Your task to perform on an android device: Is it going to rain today? Image 0: 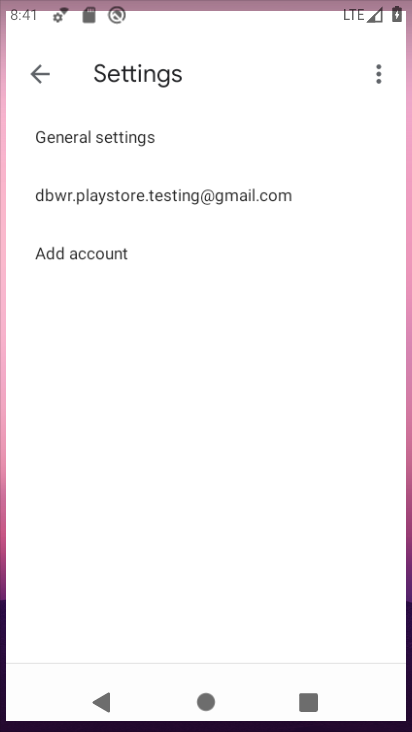
Step 0: press home button
Your task to perform on an android device: Is it going to rain today? Image 1: 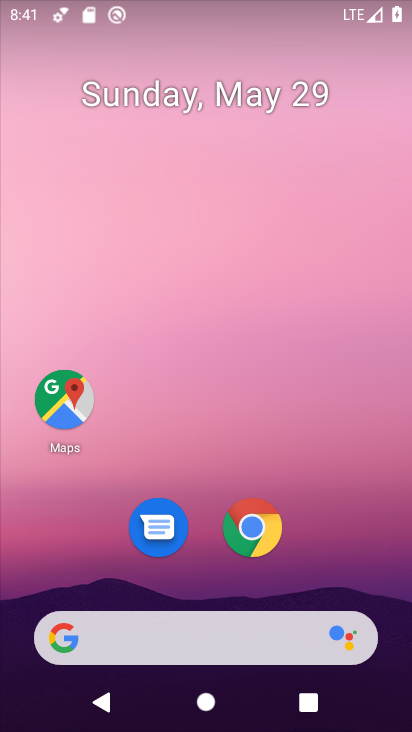
Step 1: drag from (6, 295) to (353, 291)
Your task to perform on an android device: Is it going to rain today? Image 2: 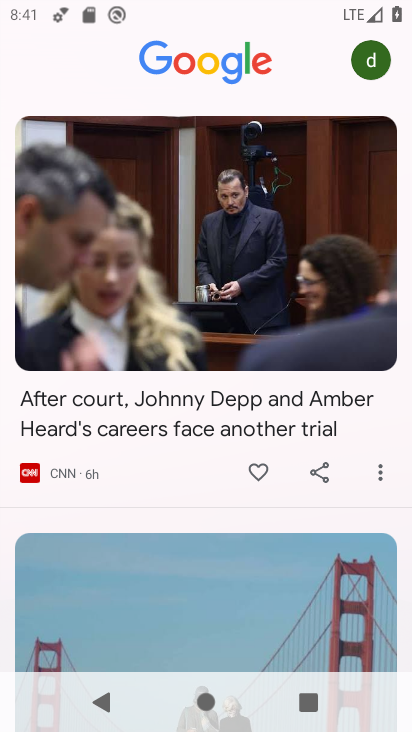
Step 2: press back button
Your task to perform on an android device: Is it going to rain today? Image 3: 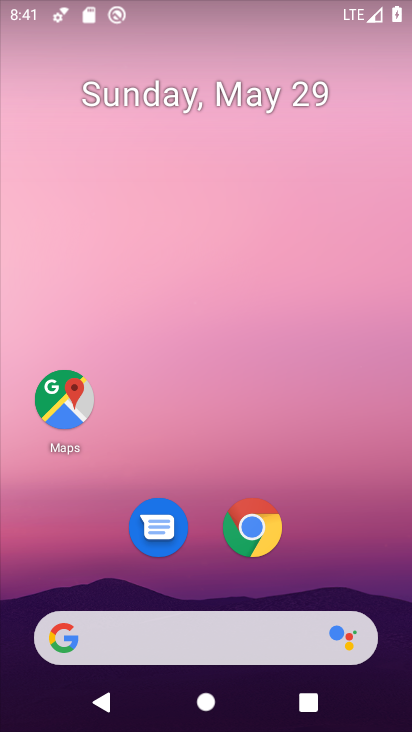
Step 3: click (176, 627)
Your task to perform on an android device: Is it going to rain today? Image 4: 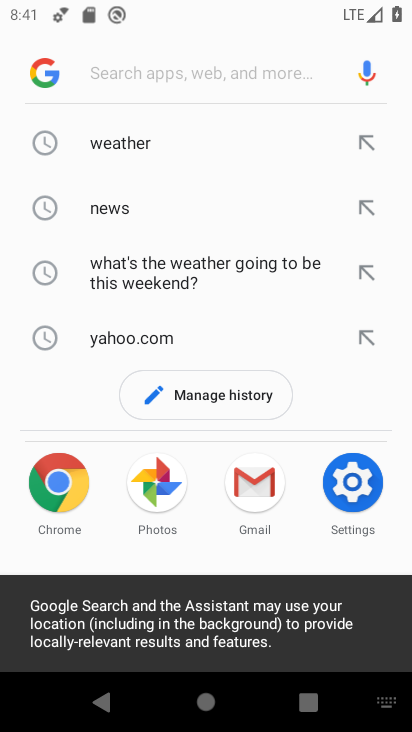
Step 4: click (143, 139)
Your task to perform on an android device: Is it going to rain today? Image 5: 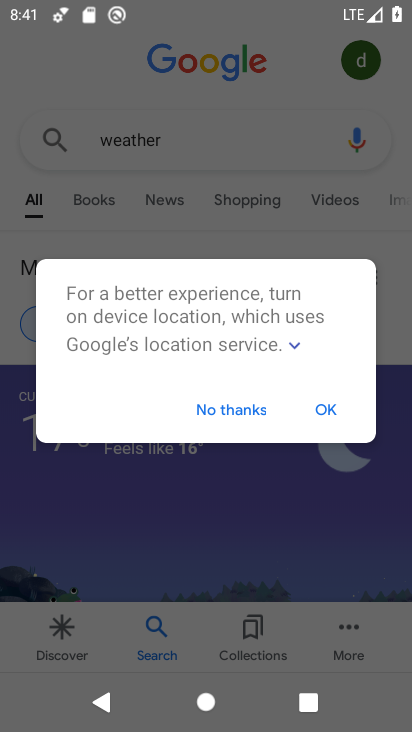
Step 5: click (318, 409)
Your task to perform on an android device: Is it going to rain today? Image 6: 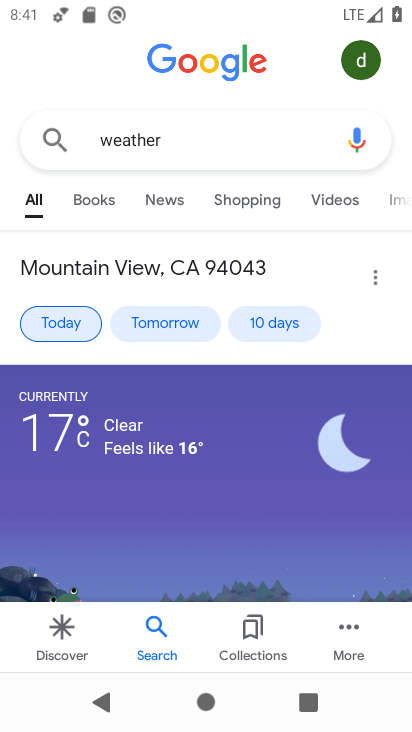
Step 6: task complete